Your task to perform on an android device: Go to Wikipedia Image 0: 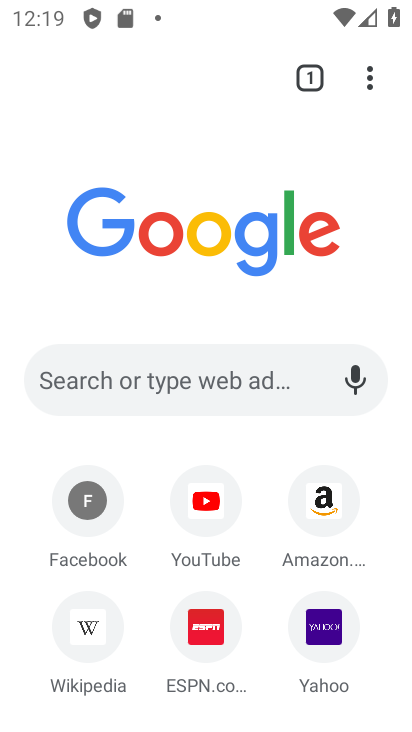
Step 0: click (96, 628)
Your task to perform on an android device: Go to Wikipedia Image 1: 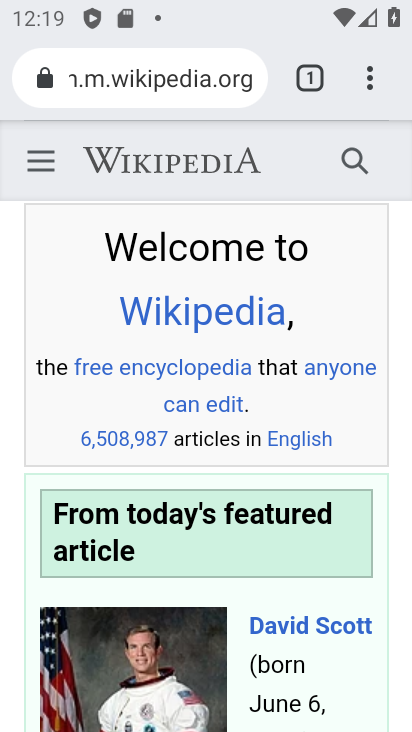
Step 1: task complete